Your task to perform on an android device: turn on notifications settings in the gmail app Image 0: 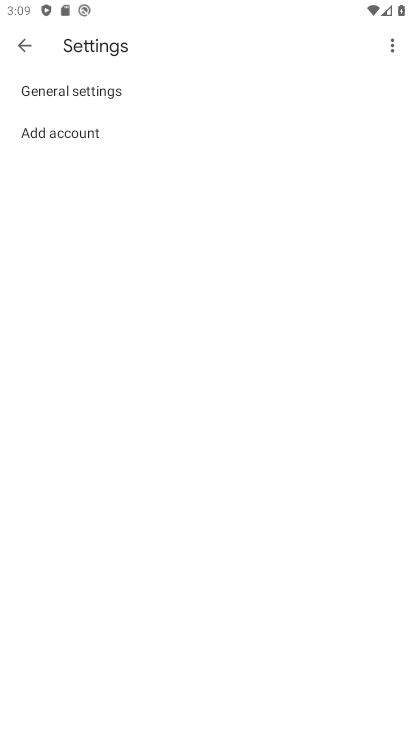
Step 0: press home button
Your task to perform on an android device: turn on notifications settings in the gmail app Image 1: 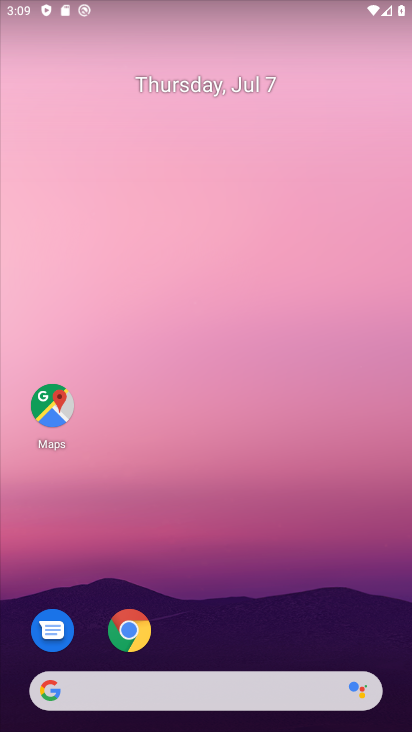
Step 1: drag from (356, 614) to (377, 87)
Your task to perform on an android device: turn on notifications settings in the gmail app Image 2: 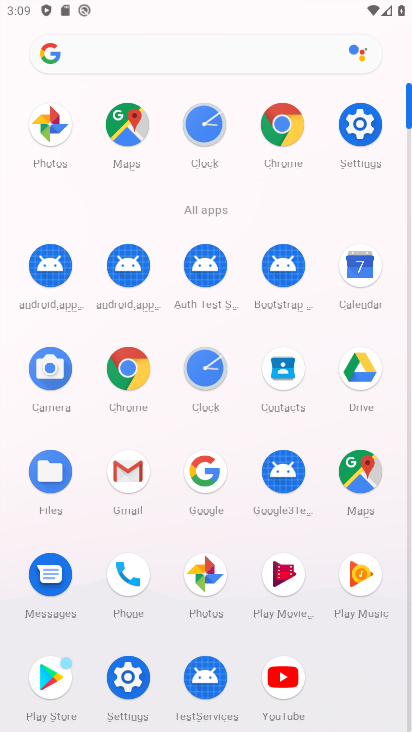
Step 2: click (134, 468)
Your task to perform on an android device: turn on notifications settings in the gmail app Image 3: 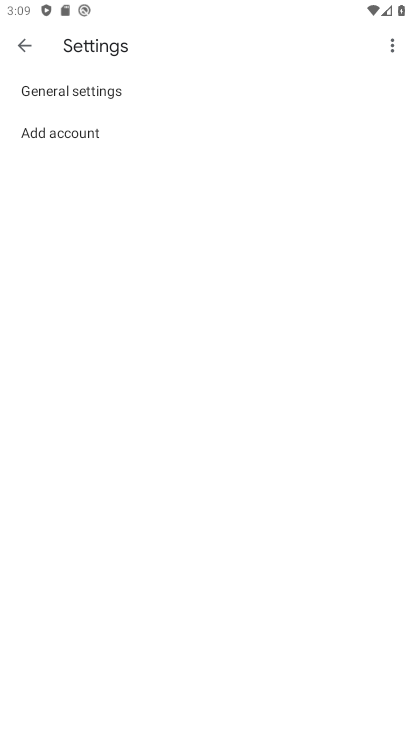
Step 3: press back button
Your task to perform on an android device: turn on notifications settings in the gmail app Image 4: 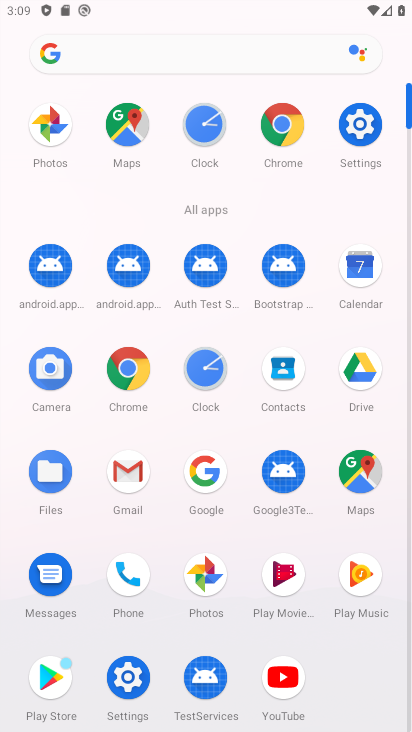
Step 4: click (130, 466)
Your task to perform on an android device: turn on notifications settings in the gmail app Image 5: 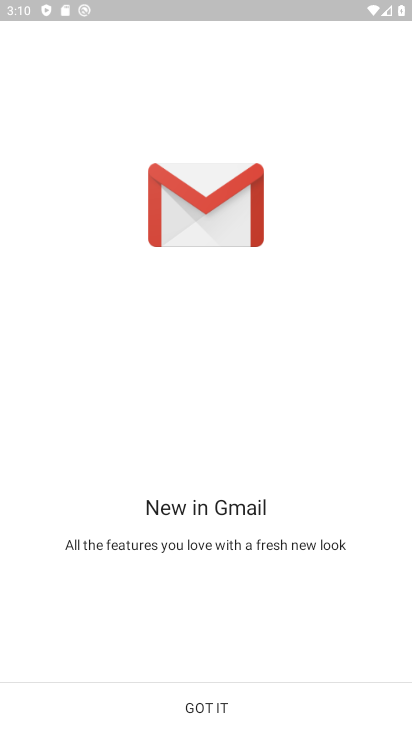
Step 5: click (207, 701)
Your task to perform on an android device: turn on notifications settings in the gmail app Image 6: 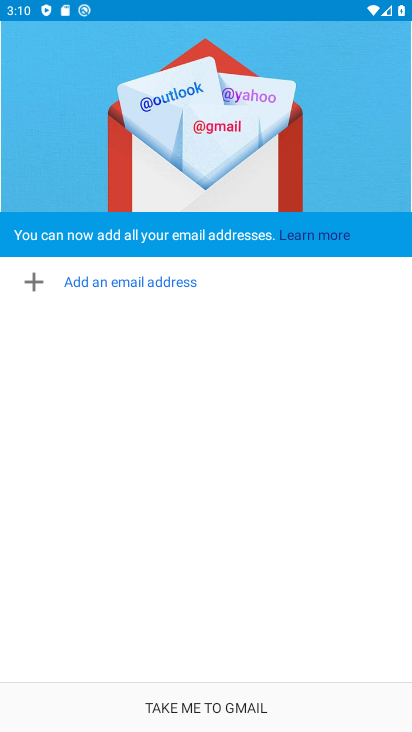
Step 6: click (207, 701)
Your task to perform on an android device: turn on notifications settings in the gmail app Image 7: 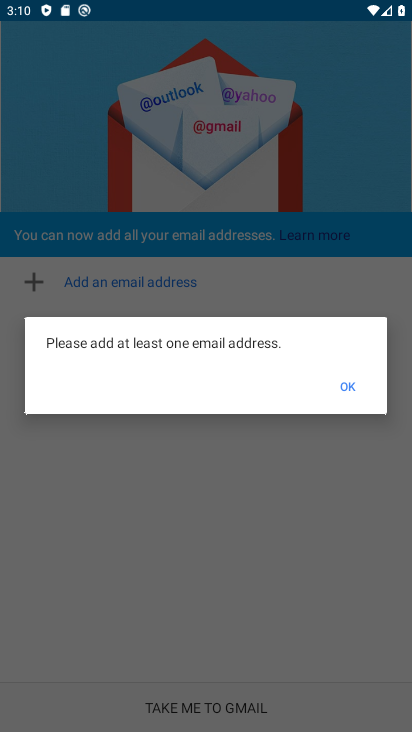
Step 7: click (347, 387)
Your task to perform on an android device: turn on notifications settings in the gmail app Image 8: 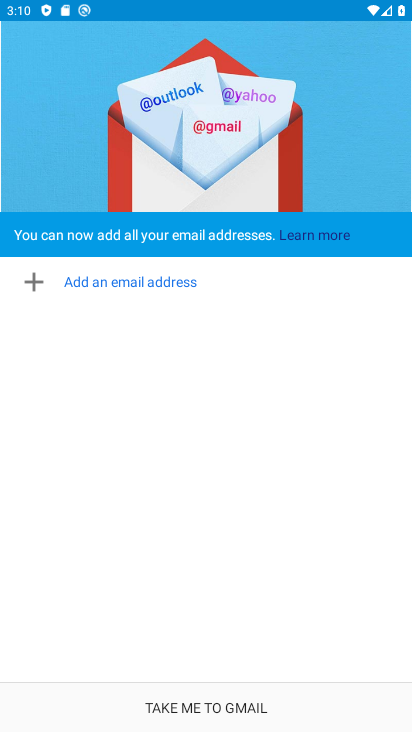
Step 8: click (209, 702)
Your task to perform on an android device: turn on notifications settings in the gmail app Image 9: 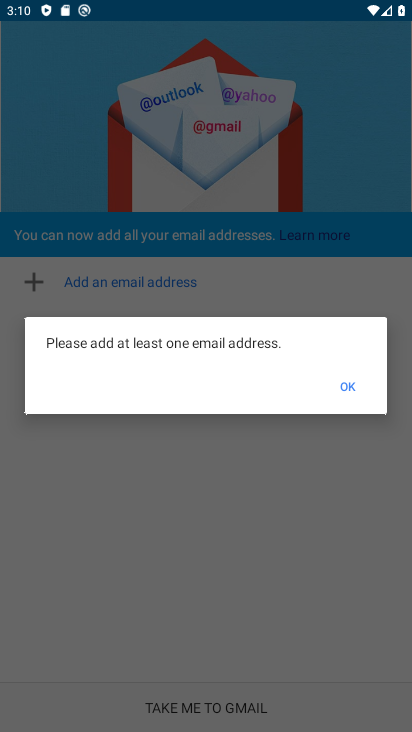
Step 9: click (355, 382)
Your task to perform on an android device: turn on notifications settings in the gmail app Image 10: 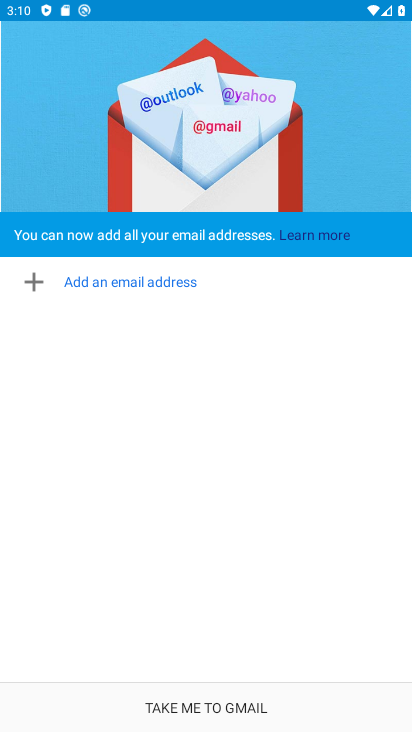
Step 10: task complete